Your task to perform on an android device: change text size in settings app Image 0: 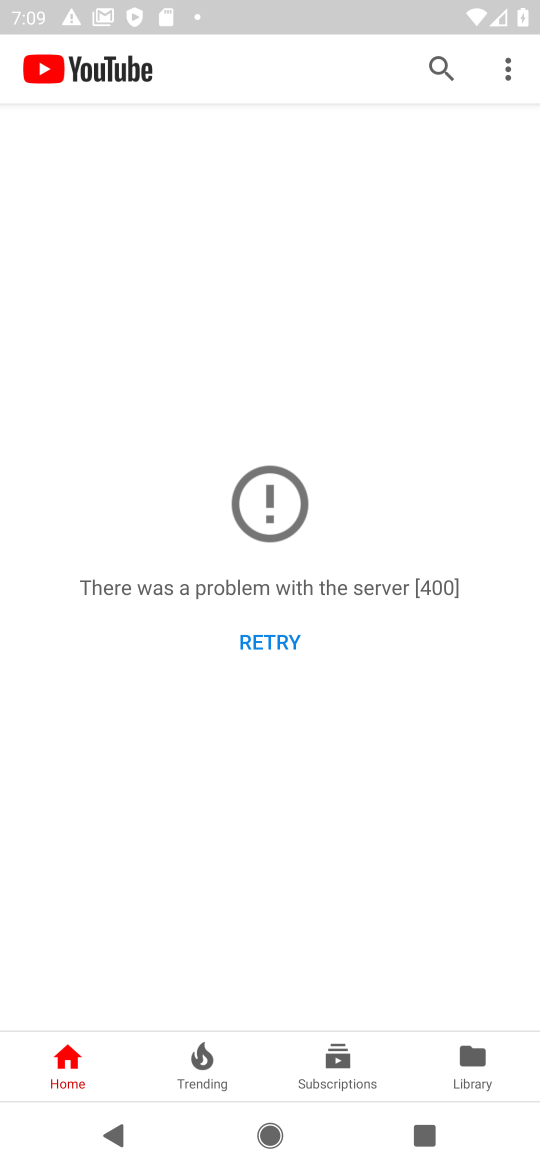
Step 0: press home button
Your task to perform on an android device: change text size in settings app Image 1: 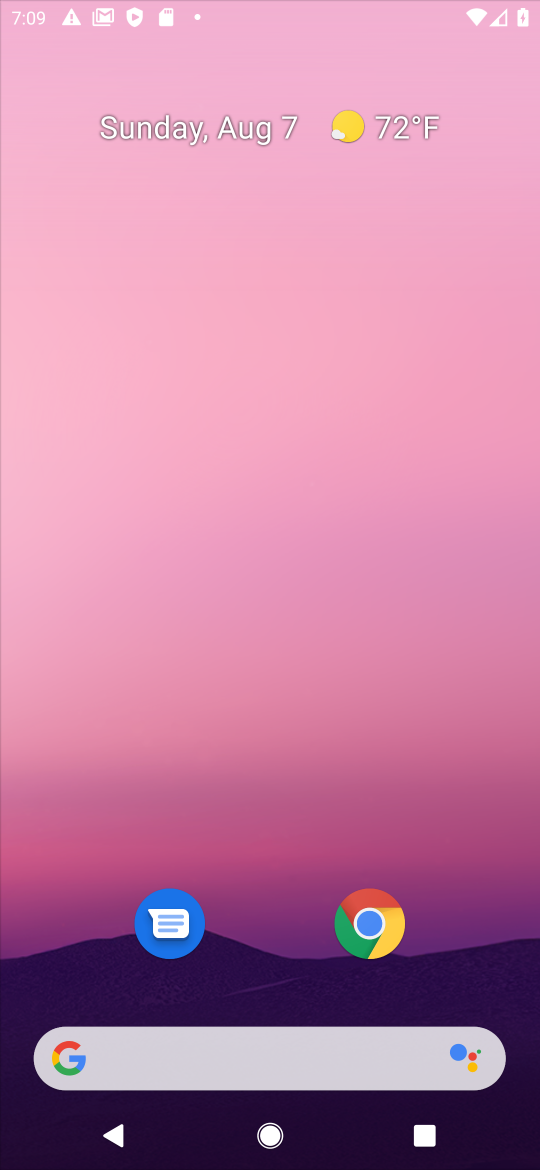
Step 1: drag from (503, 1006) to (262, 30)
Your task to perform on an android device: change text size in settings app Image 2: 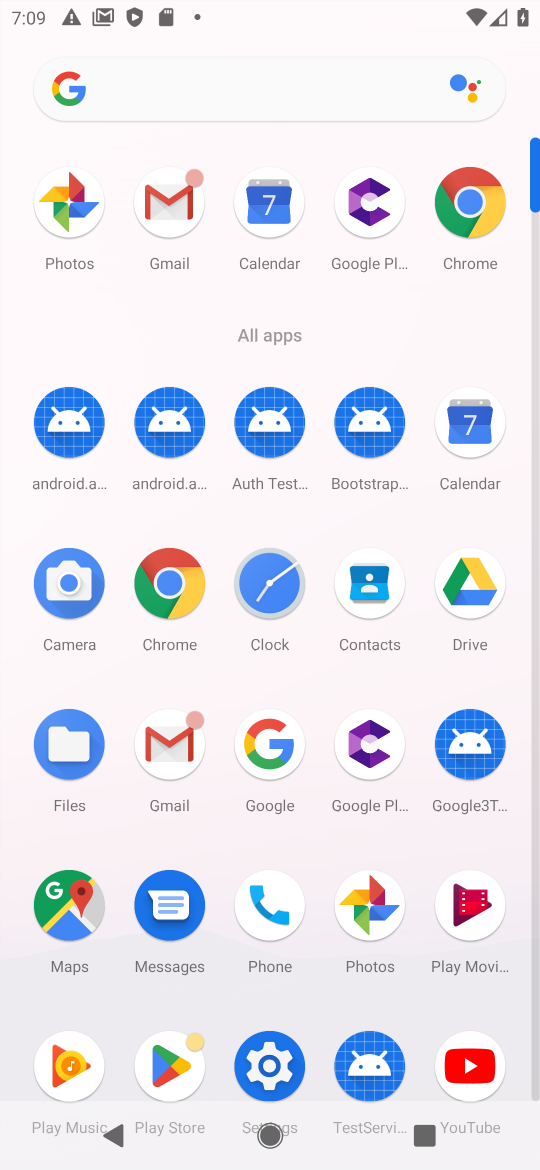
Step 2: click (283, 1072)
Your task to perform on an android device: change text size in settings app Image 3: 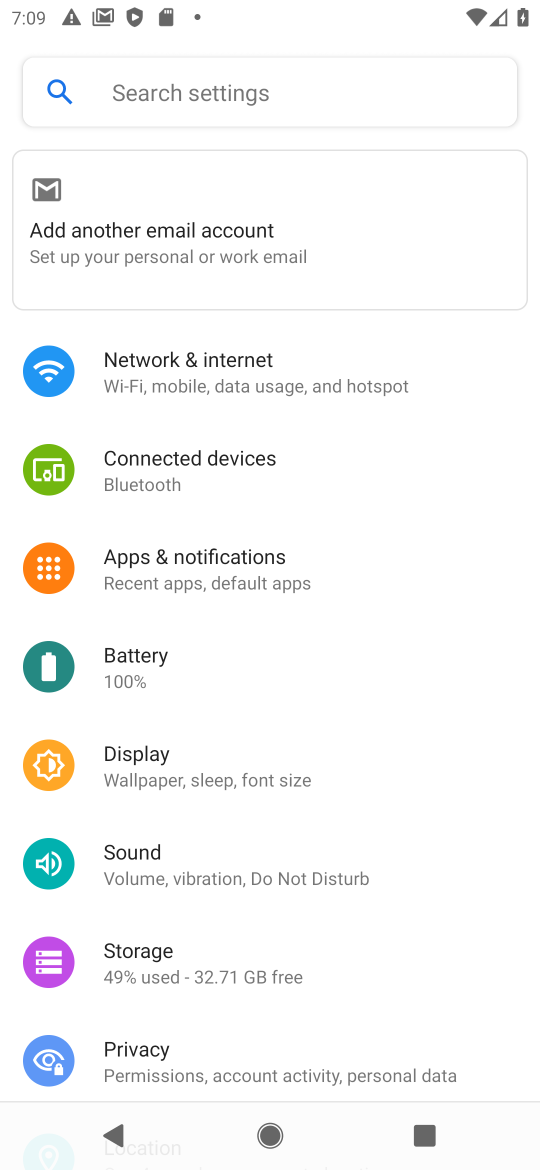
Step 3: click (151, 774)
Your task to perform on an android device: change text size in settings app Image 4: 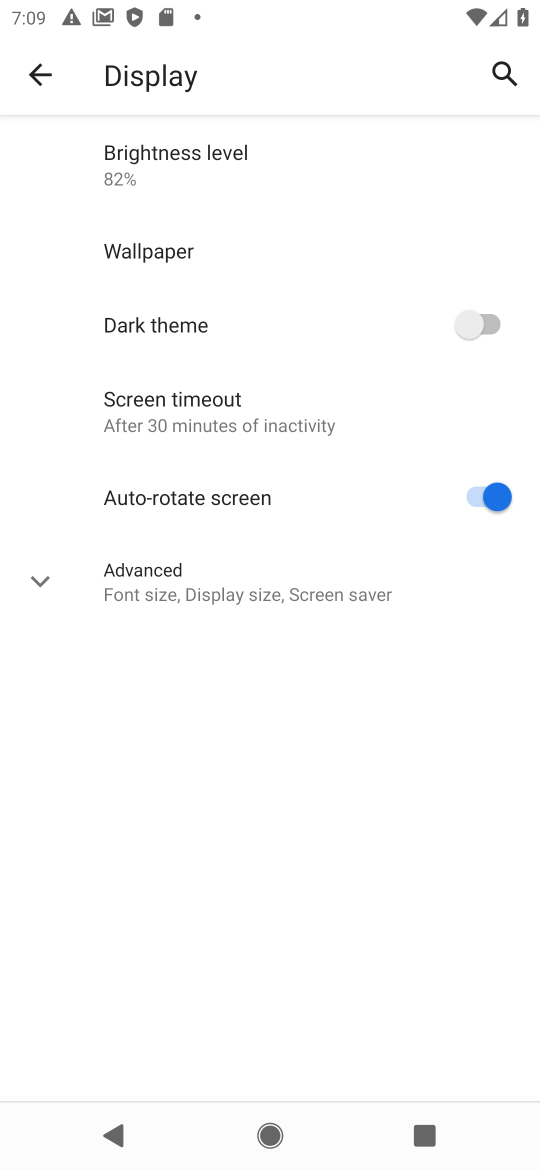
Step 4: click (151, 575)
Your task to perform on an android device: change text size in settings app Image 5: 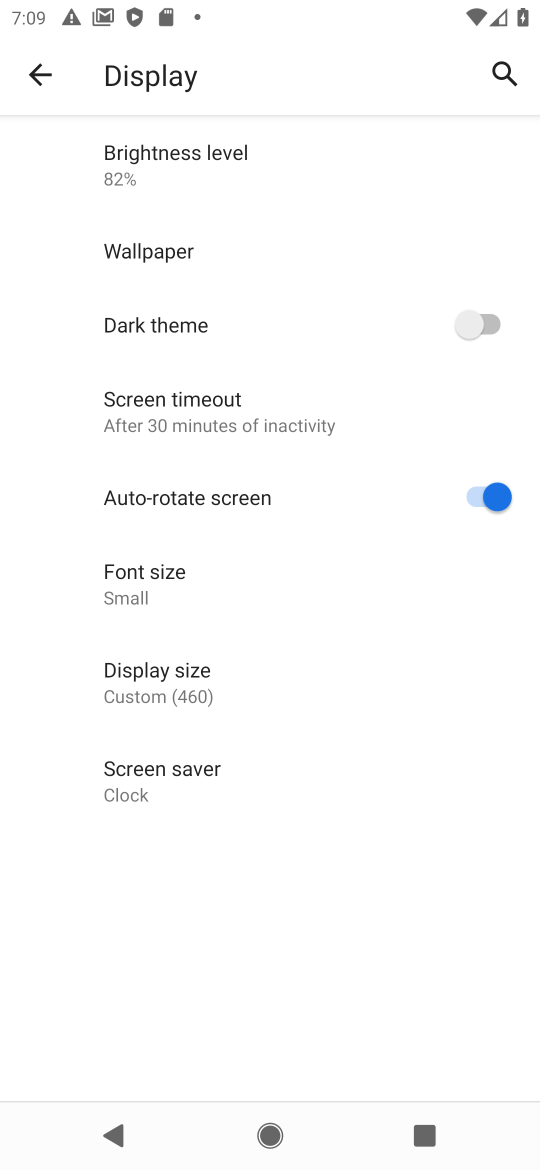
Step 5: click (154, 583)
Your task to perform on an android device: change text size in settings app Image 6: 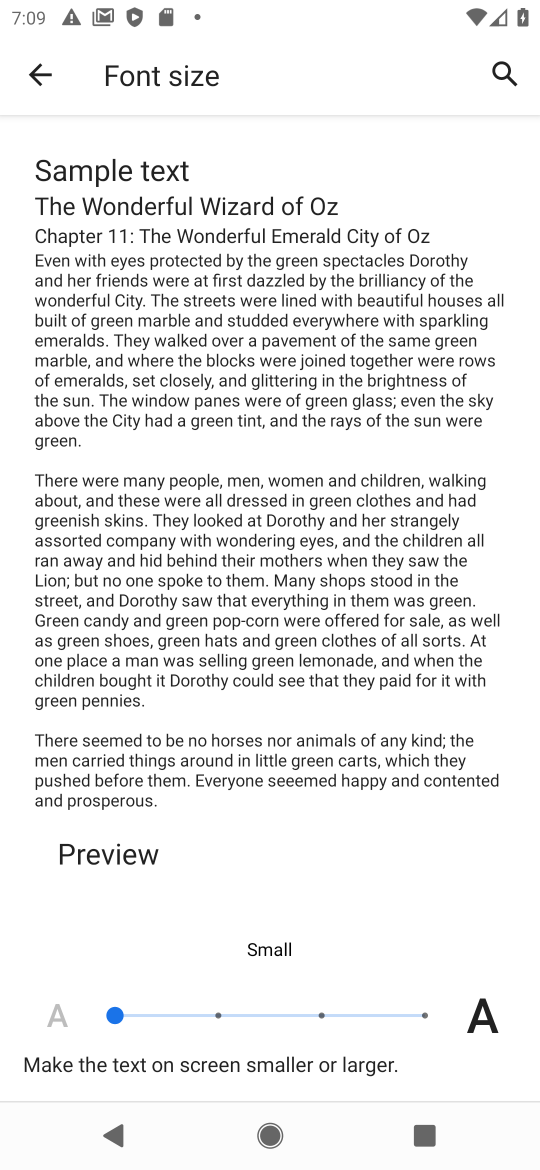
Step 6: click (430, 1013)
Your task to perform on an android device: change text size in settings app Image 7: 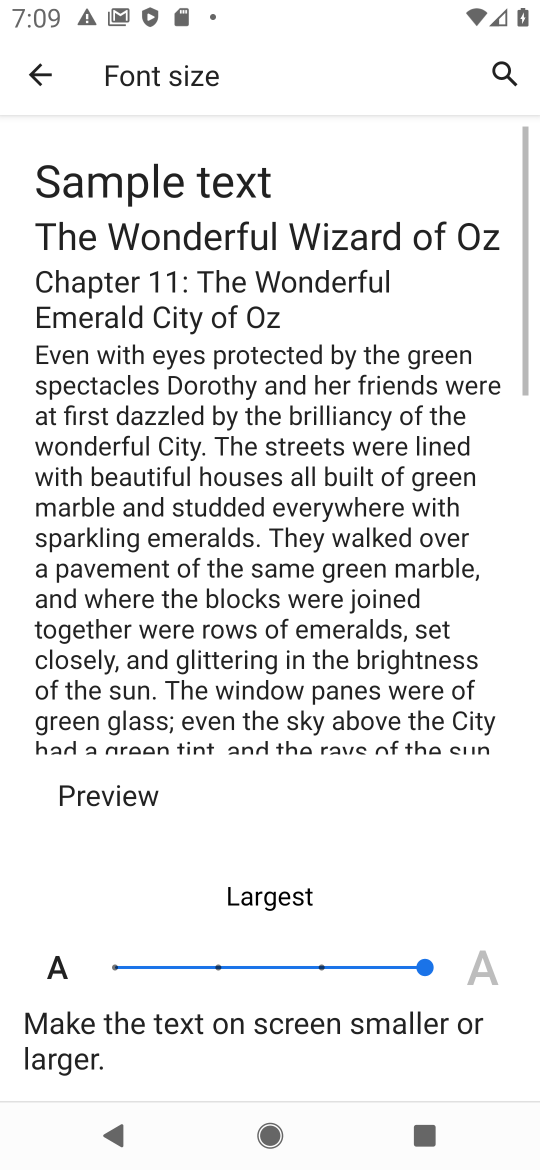
Step 7: task complete